Your task to perform on an android device: set the timer Image 0: 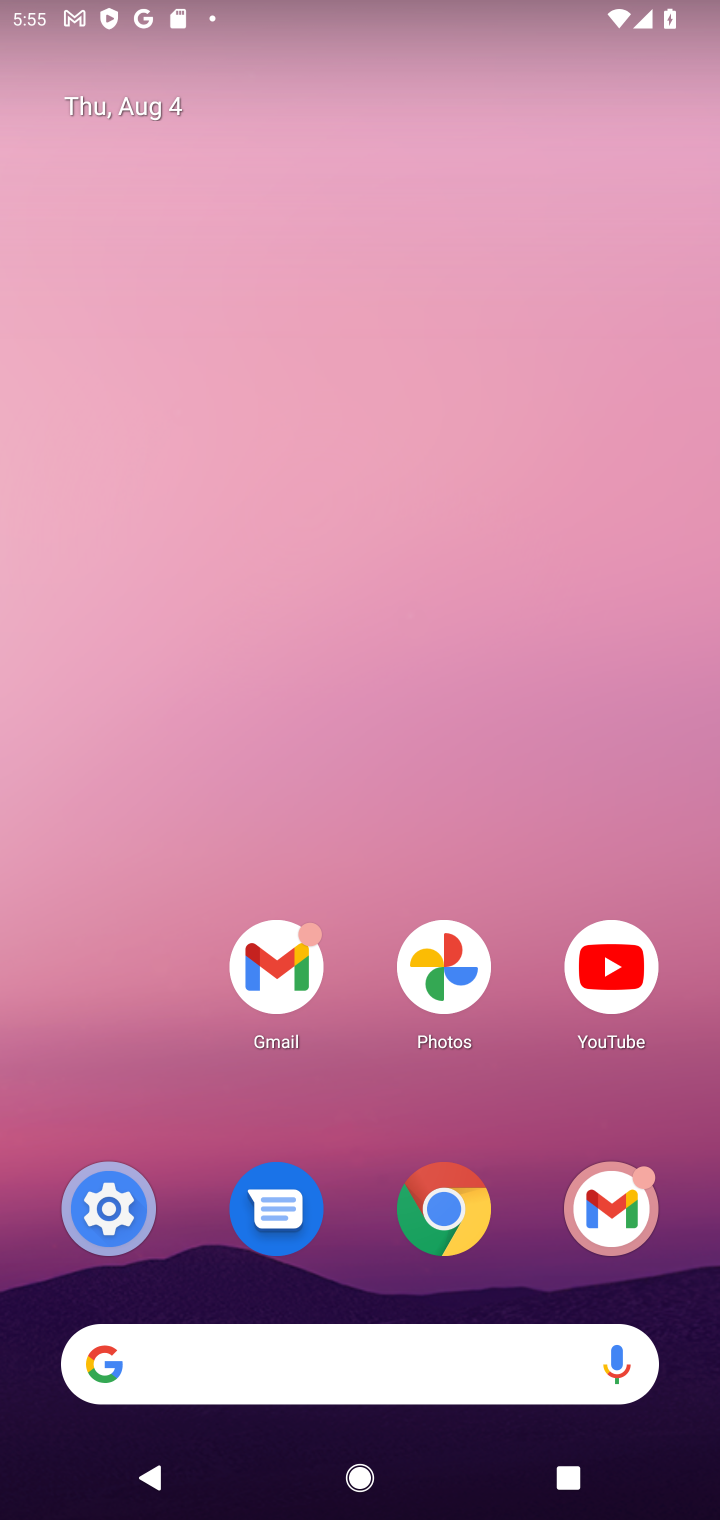
Step 0: drag from (313, 1373) to (494, 9)
Your task to perform on an android device: set the timer Image 1: 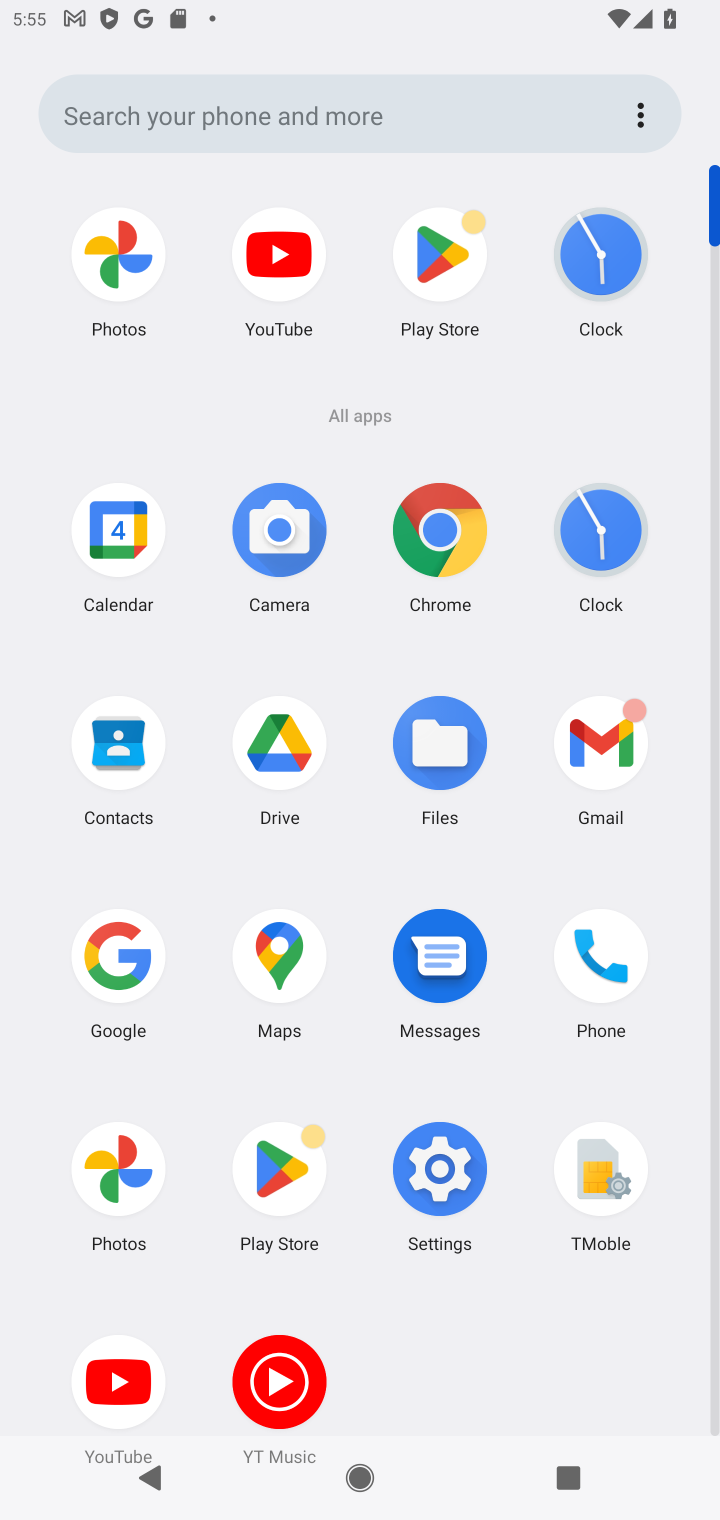
Step 1: click (629, 511)
Your task to perform on an android device: set the timer Image 2: 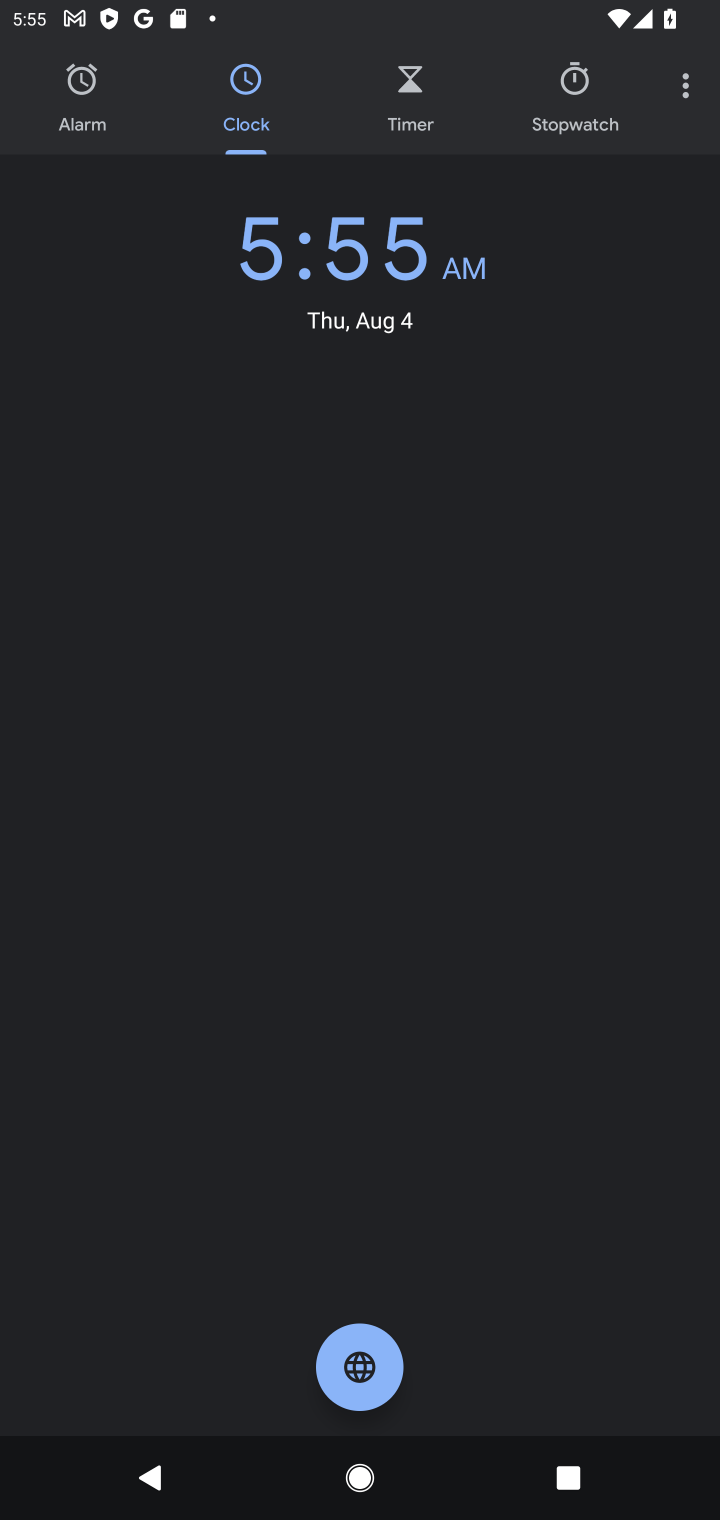
Step 2: click (426, 86)
Your task to perform on an android device: set the timer Image 3: 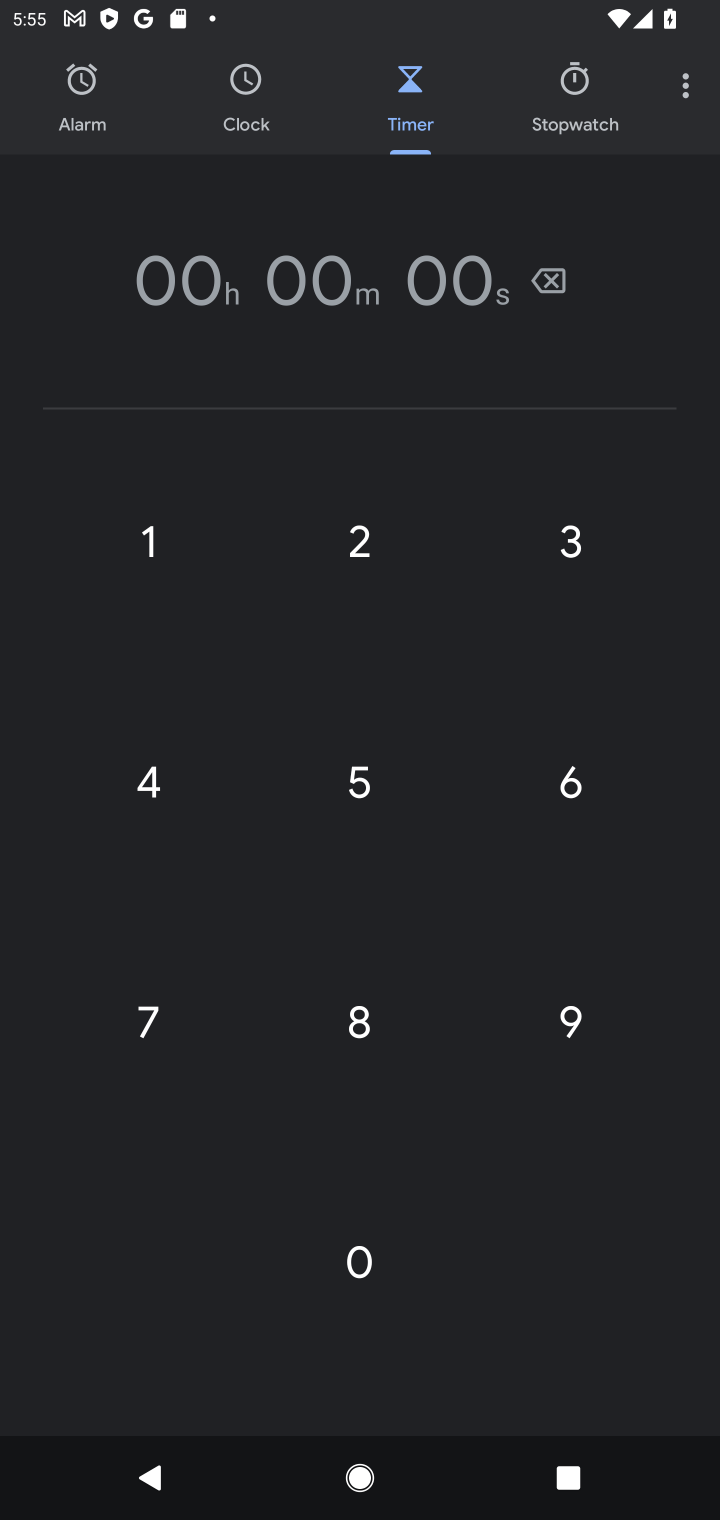
Step 3: click (360, 1005)
Your task to perform on an android device: set the timer Image 4: 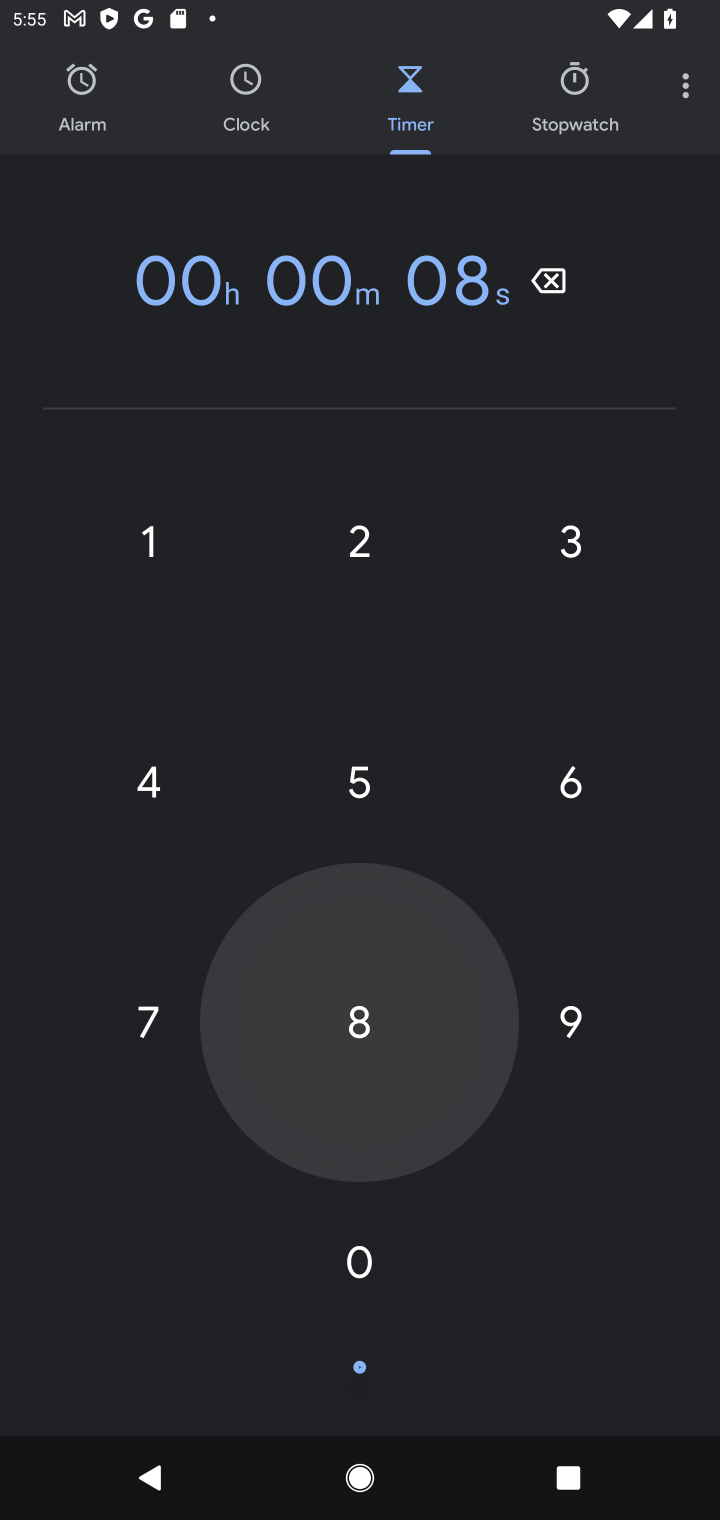
Step 4: click (359, 832)
Your task to perform on an android device: set the timer Image 5: 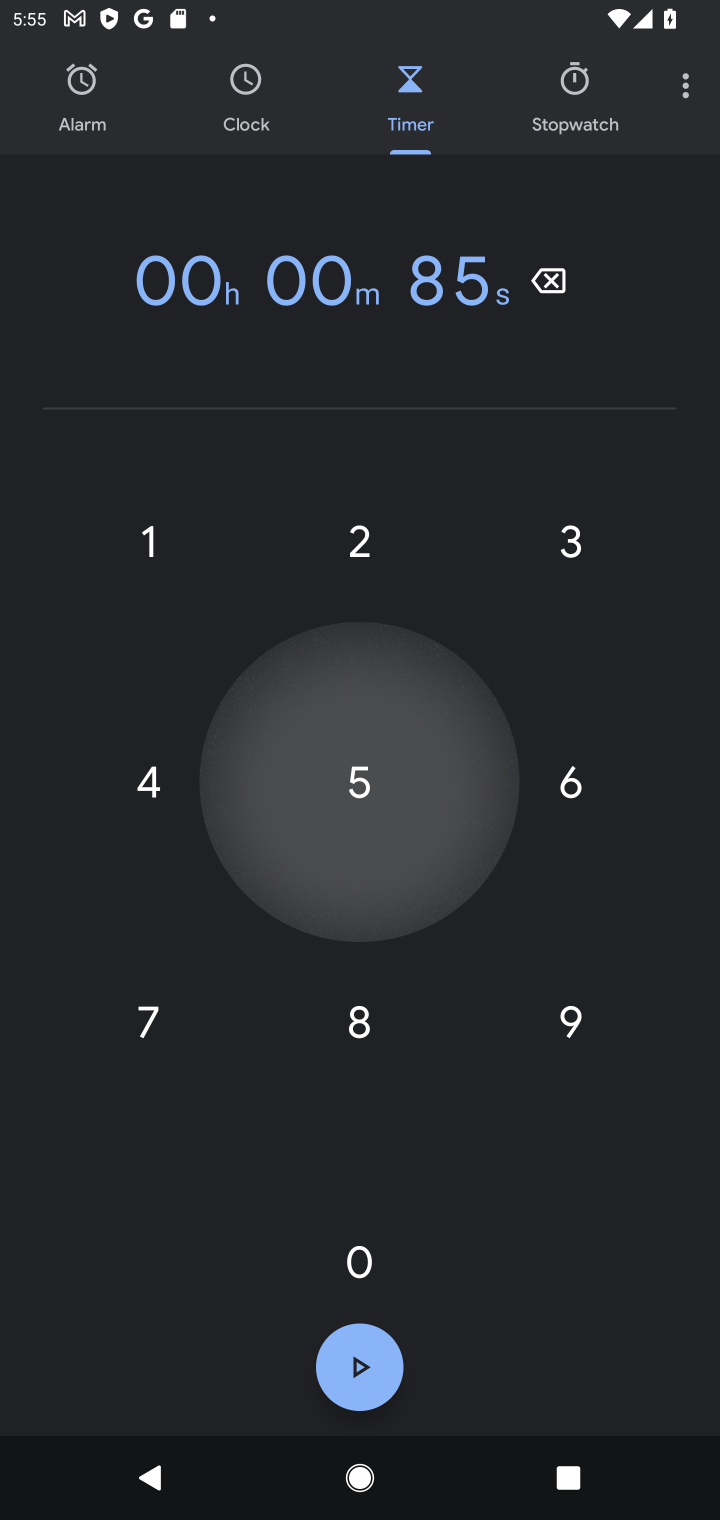
Step 5: click (597, 759)
Your task to perform on an android device: set the timer Image 6: 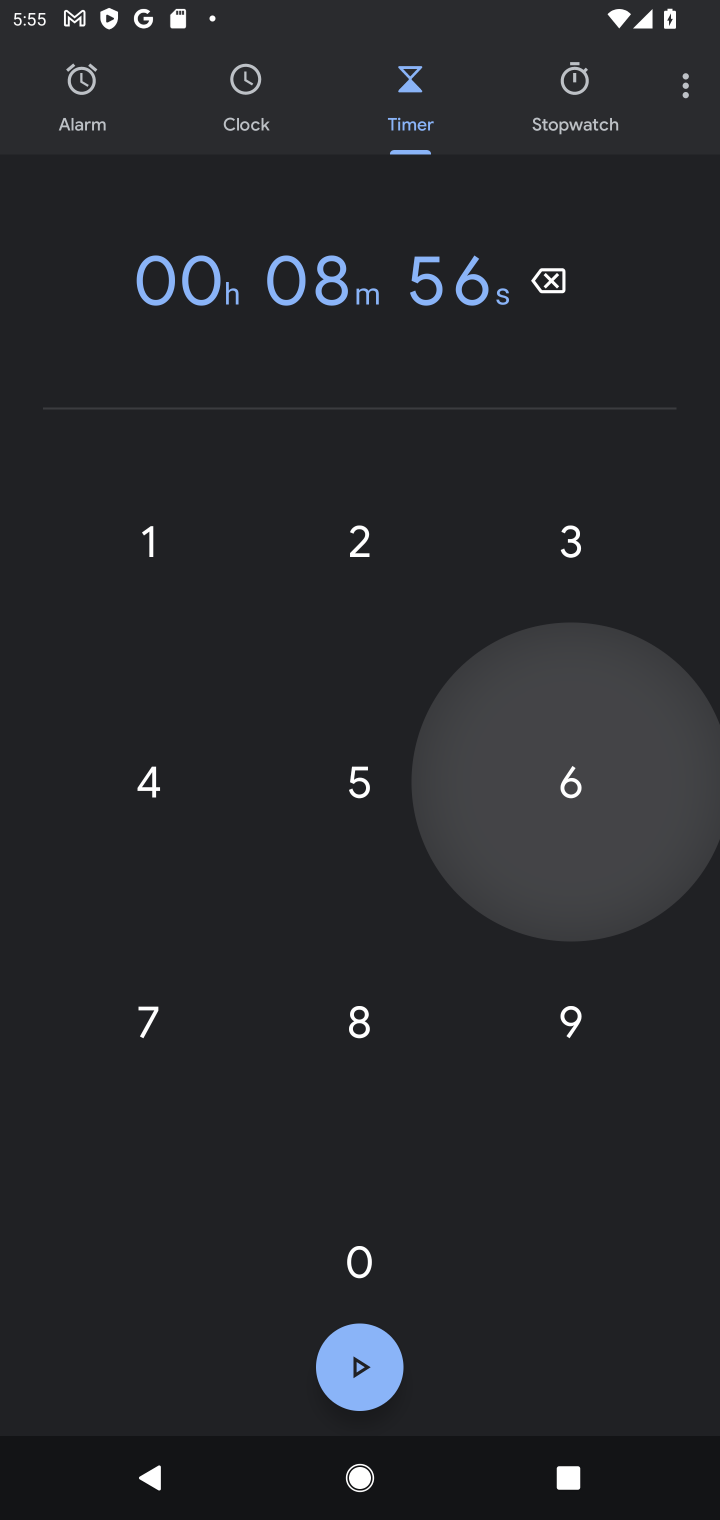
Step 6: click (587, 1003)
Your task to perform on an android device: set the timer Image 7: 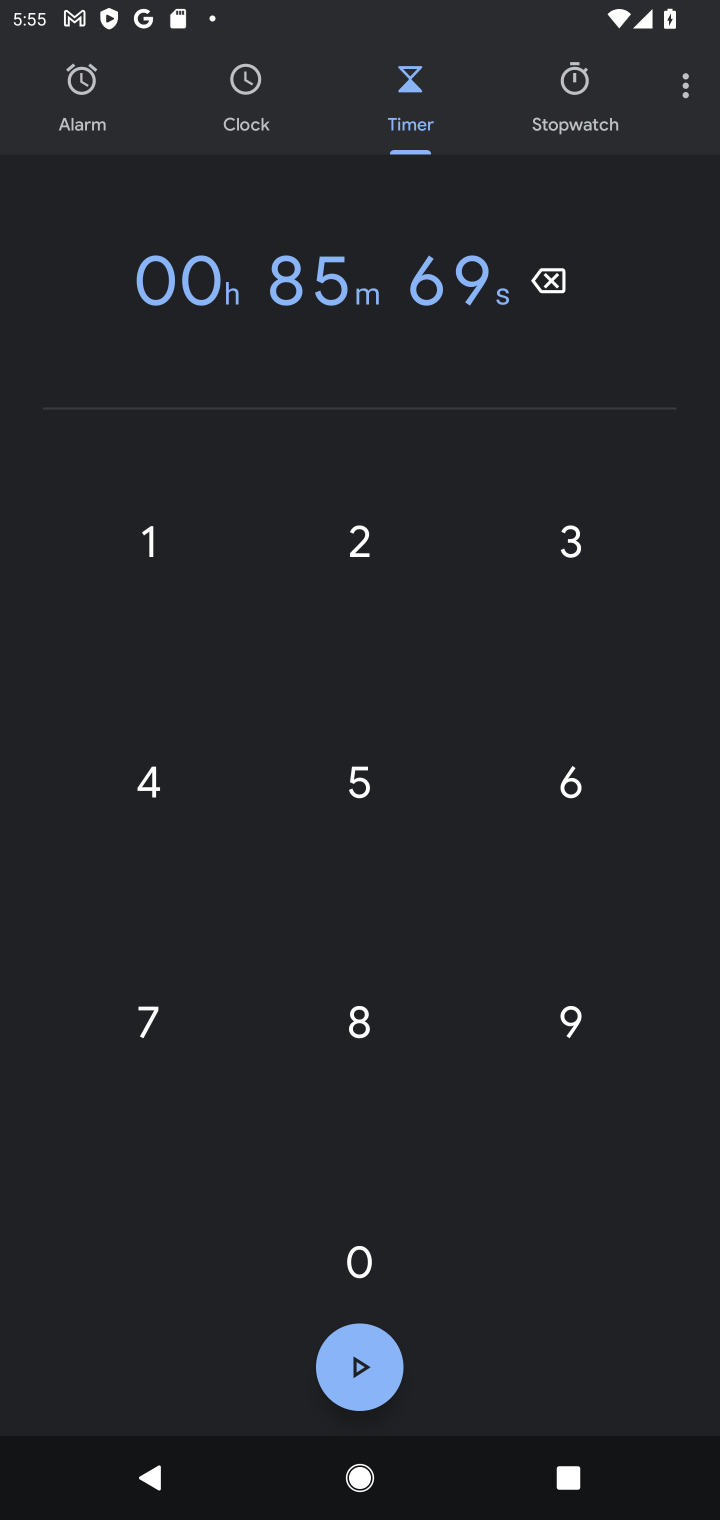
Step 7: click (385, 1388)
Your task to perform on an android device: set the timer Image 8: 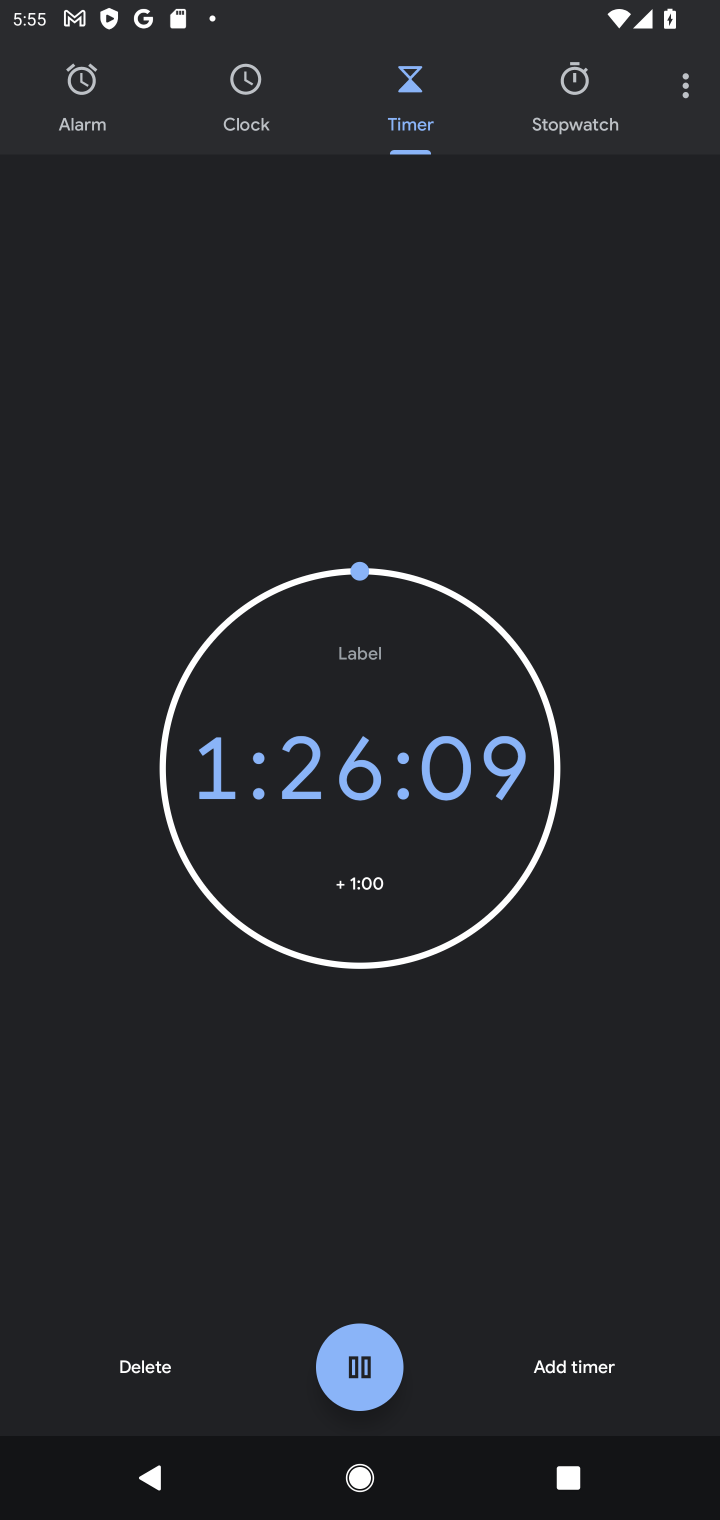
Step 8: task complete